Your task to perform on an android device: When is my next meeting? Image 0: 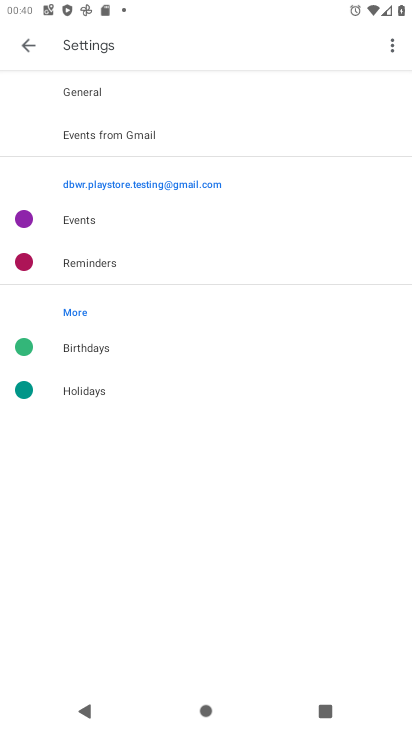
Step 0: press home button
Your task to perform on an android device: When is my next meeting? Image 1: 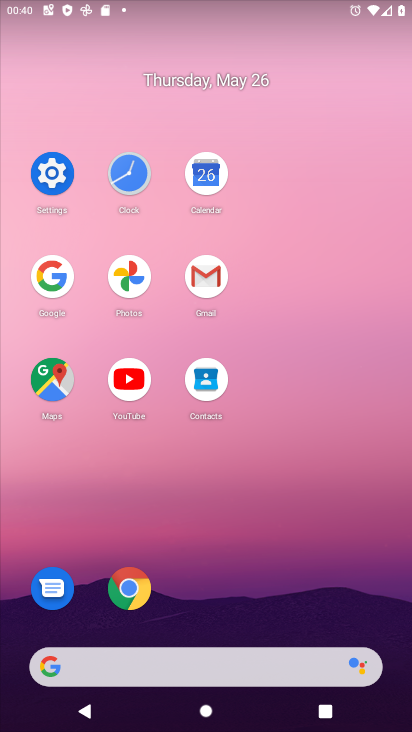
Step 1: click (196, 169)
Your task to perform on an android device: When is my next meeting? Image 2: 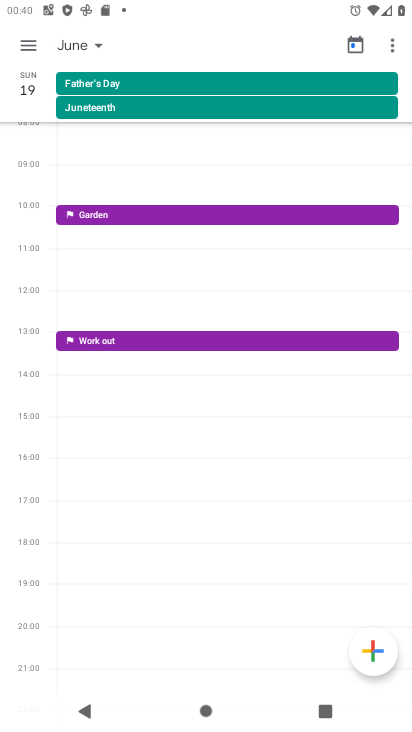
Step 2: click (79, 39)
Your task to perform on an android device: When is my next meeting? Image 3: 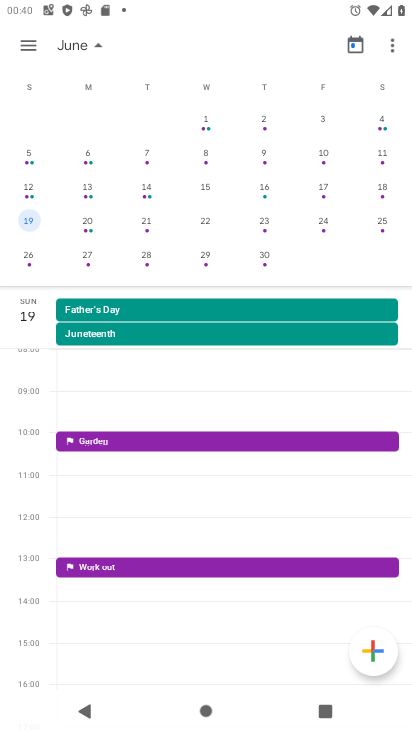
Step 3: drag from (37, 176) to (407, 162)
Your task to perform on an android device: When is my next meeting? Image 4: 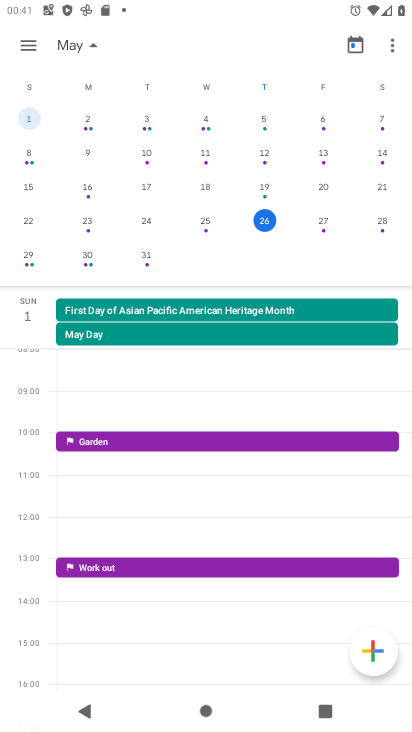
Step 4: click (321, 218)
Your task to perform on an android device: When is my next meeting? Image 5: 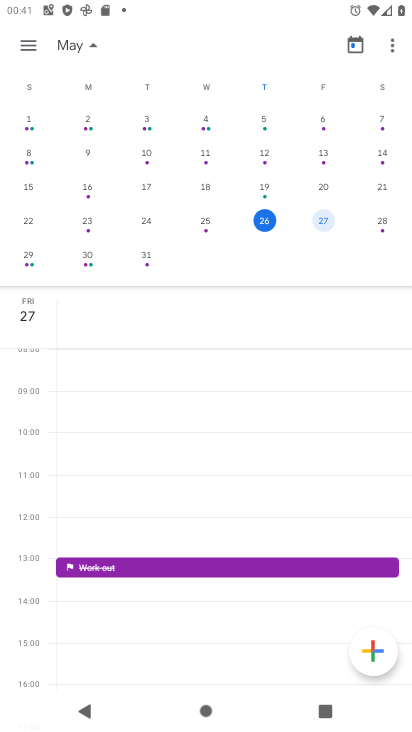
Step 5: task complete